Your task to perform on an android device: turn off location Image 0: 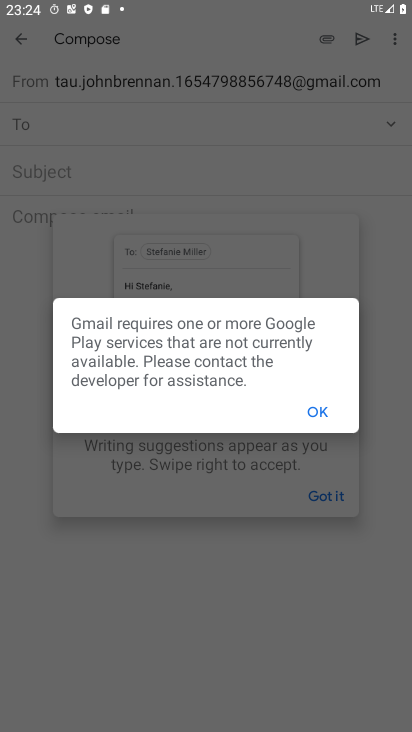
Step 0: press home button
Your task to perform on an android device: turn off location Image 1: 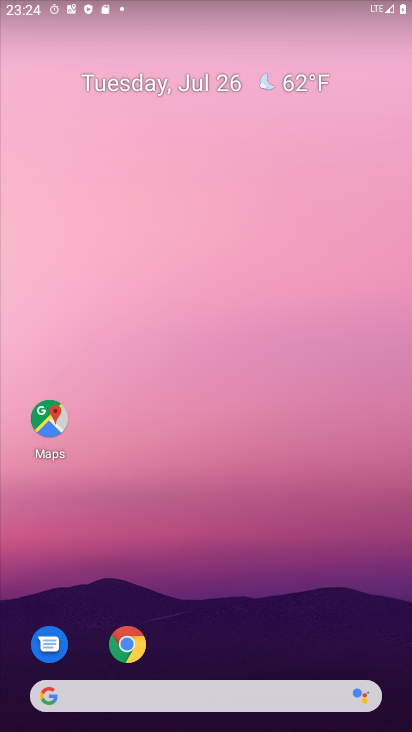
Step 1: drag from (229, 656) to (273, 56)
Your task to perform on an android device: turn off location Image 2: 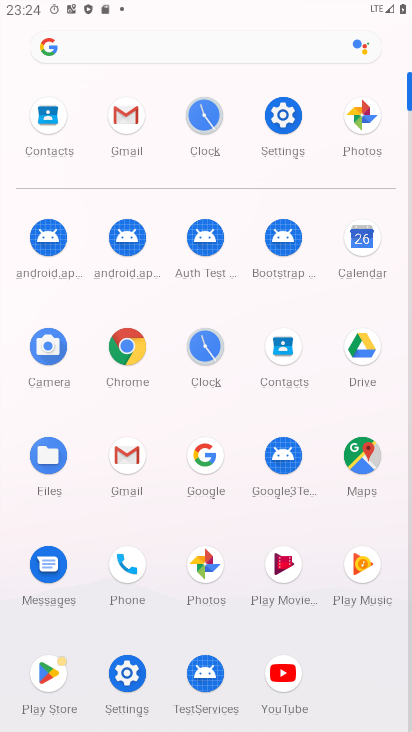
Step 2: click (285, 110)
Your task to perform on an android device: turn off location Image 3: 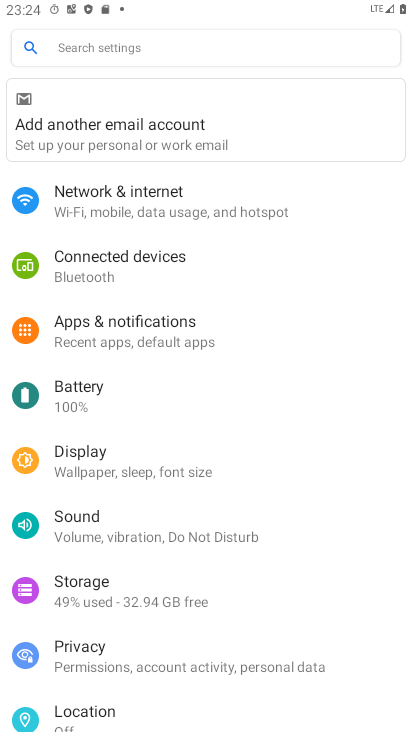
Step 3: click (90, 707)
Your task to perform on an android device: turn off location Image 4: 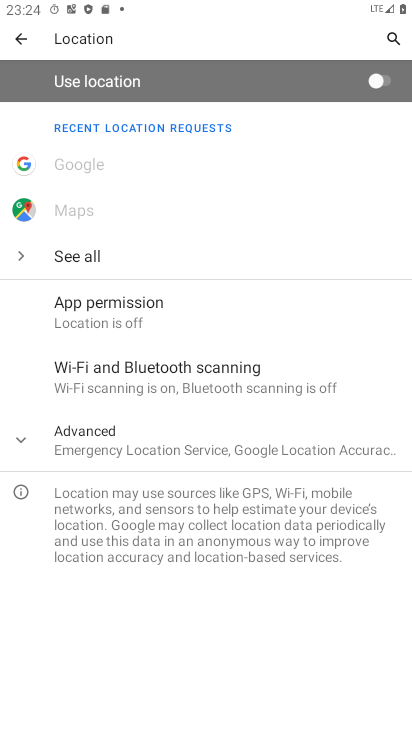
Step 4: task complete